Your task to perform on an android device: change text size in settings app Image 0: 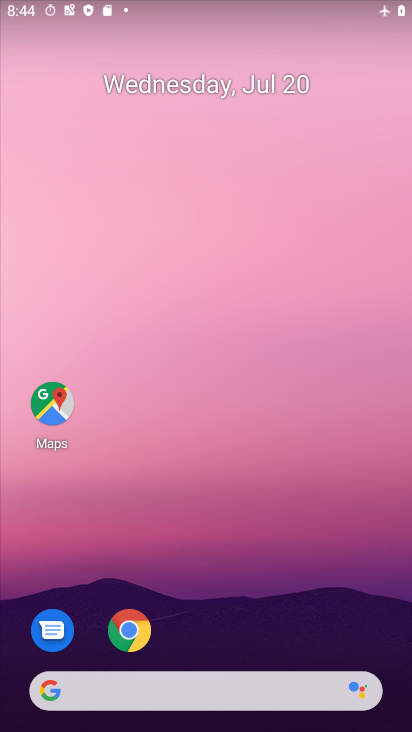
Step 0: drag from (243, 633) to (198, 155)
Your task to perform on an android device: change text size in settings app Image 1: 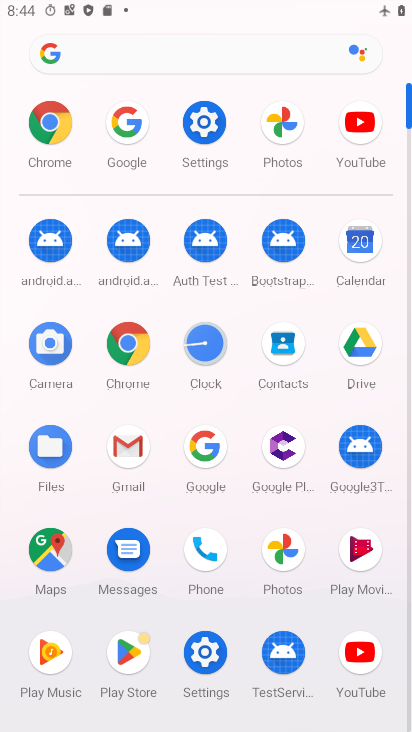
Step 1: click (207, 131)
Your task to perform on an android device: change text size in settings app Image 2: 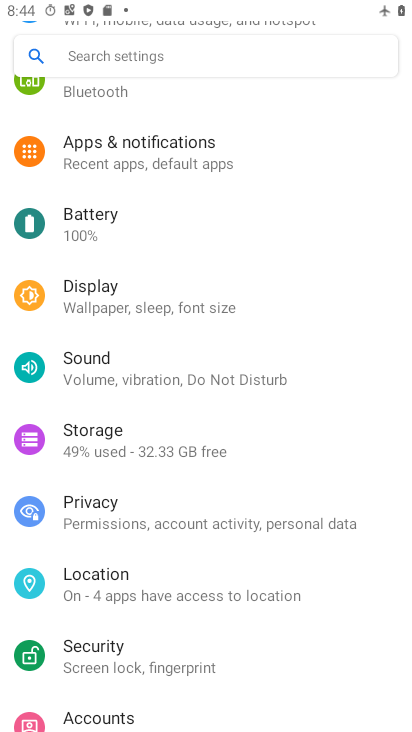
Step 2: click (177, 304)
Your task to perform on an android device: change text size in settings app Image 3: 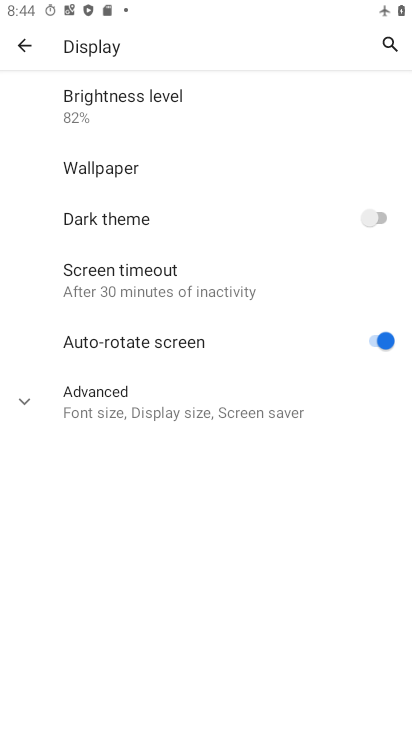
Step 3: click (193, 410)
Your task to perform on an android device: change text size in settings app Image 4: 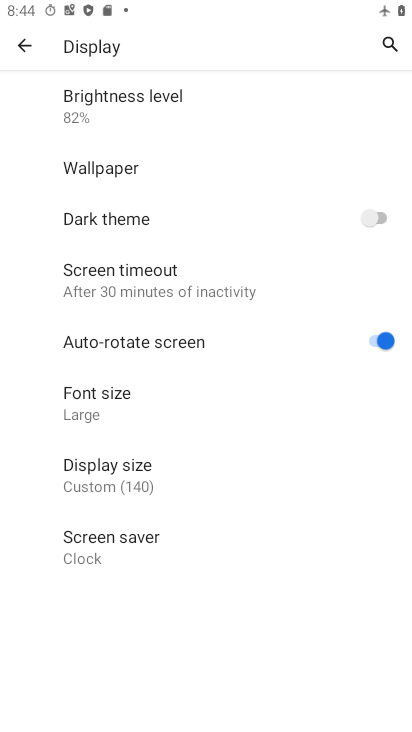
Step 4: click (24, 44)
Your task to perform on an android device: change text size in settings app Image 5: 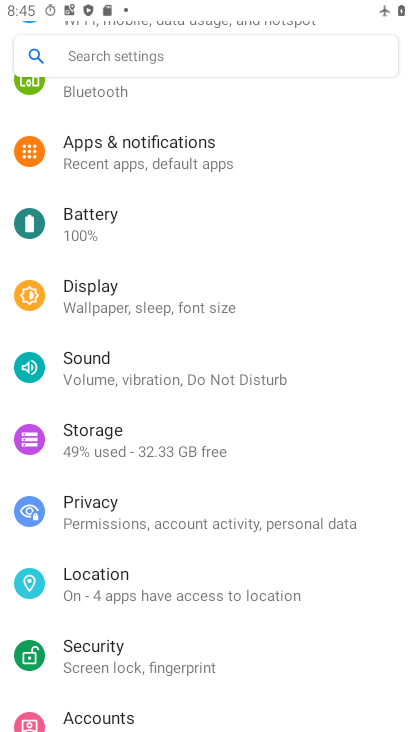
Step 5: drag from (277, 233) to (222, 410)
Your task to perform on an android device: change text size in settings app Image 6: 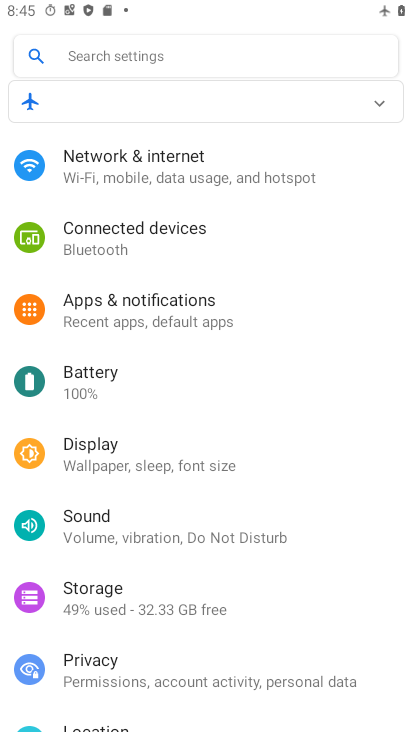
Step 6: click (136, 459)
Your task to perform on an android device: change text size in settings app Image 7: 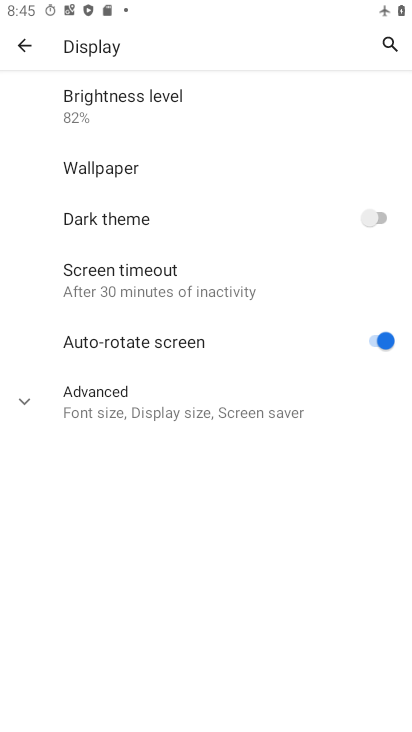
Step 7: click (140, 409)
Your task to perform on an android device: change text size in settings app Image 8: 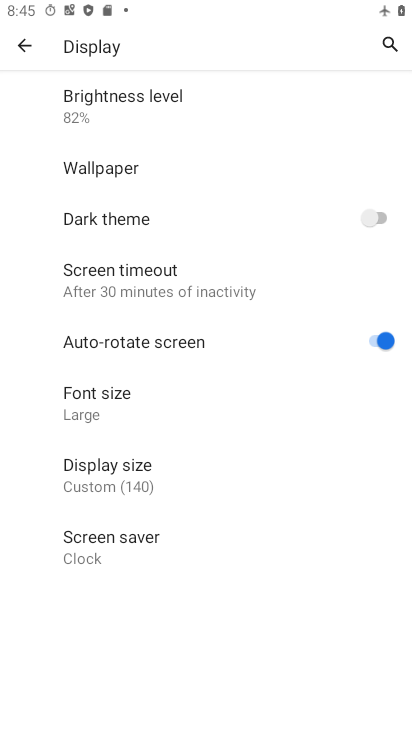
Step 8: click (140, 439)
Your task to perform on an android device: change text size in settings app Image 9: 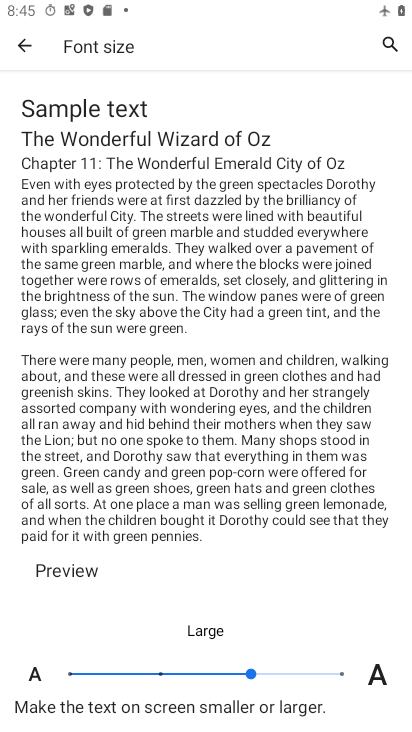
Step 9: click (345, 672)
Your task to perform on an android device: change text size in settings app Image 10: 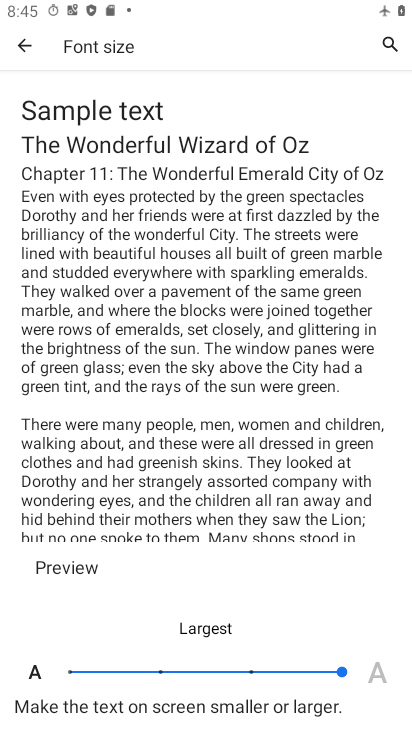
Step 10: task complete